Your task to perform on an android device: toggle airplane mode Image 0: 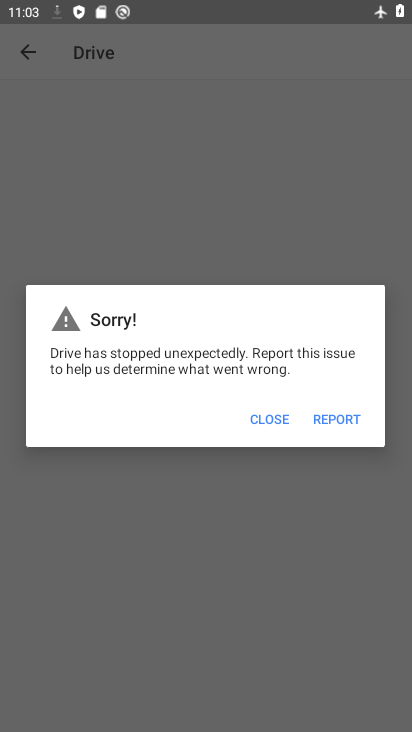
Step 0: press home button
Your task to perform on an android device: toggle airplane mode Image 1: 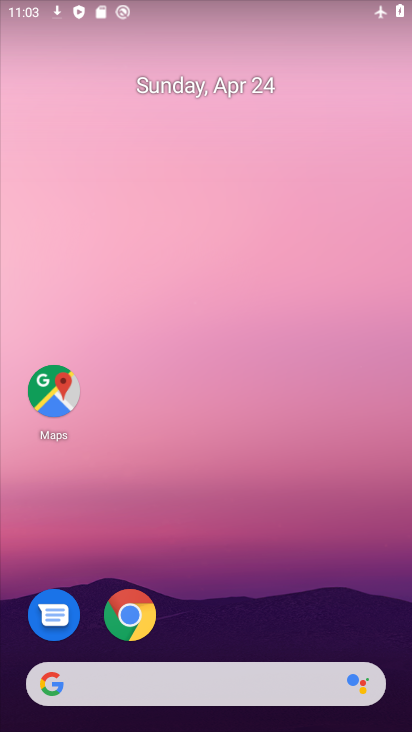
Step 1: drag from (248, 581) to (319, 38)
Your task to perform on an android device: toggle airplane mode Image 2: 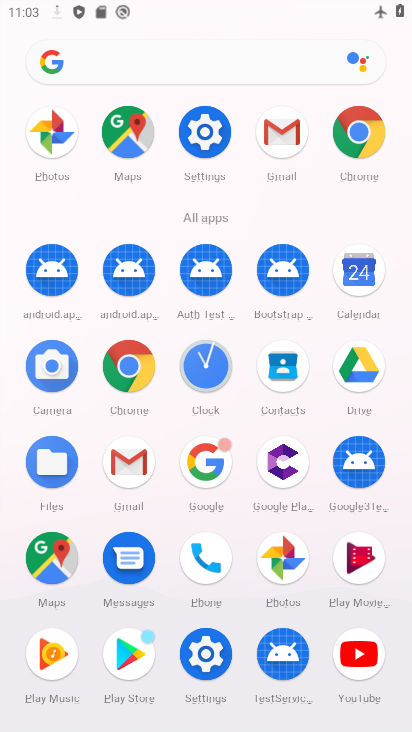
Step 2: click (204, 152)
Your task to perform on an android device: toggle airplane mode Image 3: 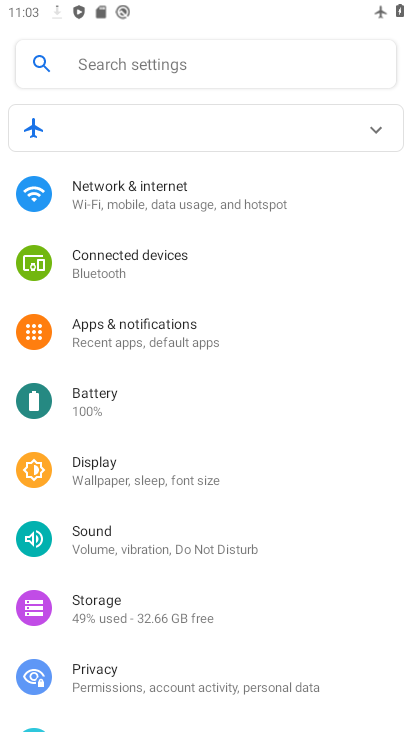
Step 3: click (294, 205)
Your task to perform on an android device: toggle airplane mode Image 4: 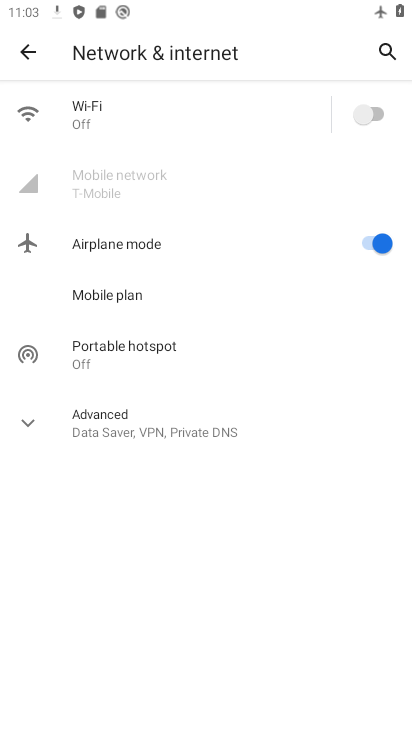
Step 4: click (389, 249)
Your task to perform on an android device: toggle airplane mode Image 5: 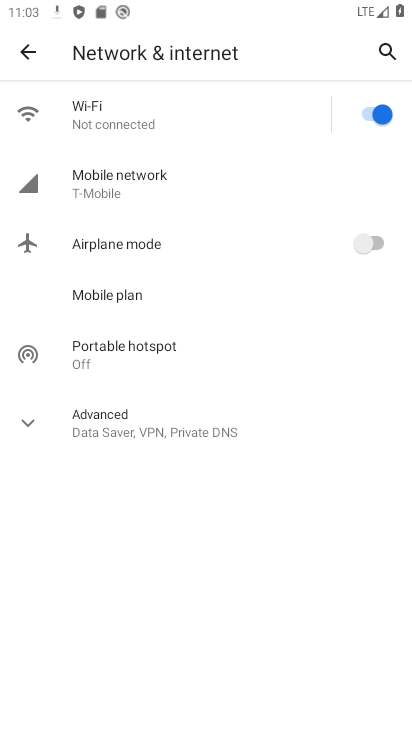
Step 5: task complete